Your task to perform on an android device: Is it going to rain this weekend? Image 0: 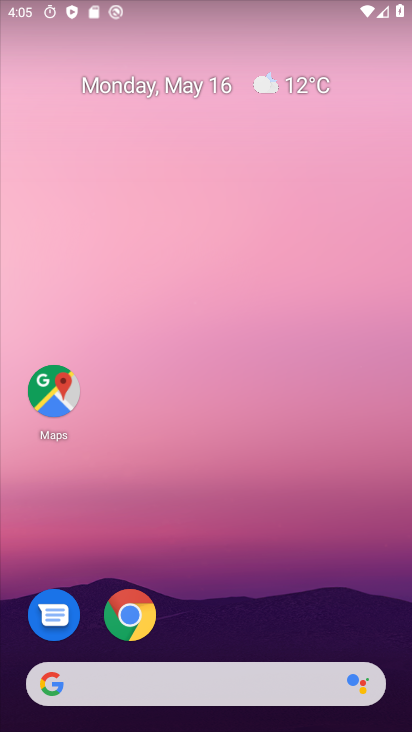
Step 0: click (160, 658)
Your task to perform on an android device: Is it going to rain this weekend? Image 1: 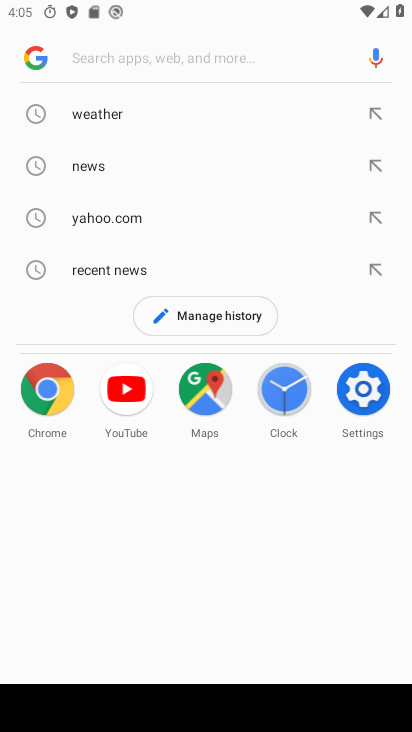
Step 1: click (129, 112)
Your task to perform on an android device: Is it going to rain this weekend? Image 2: 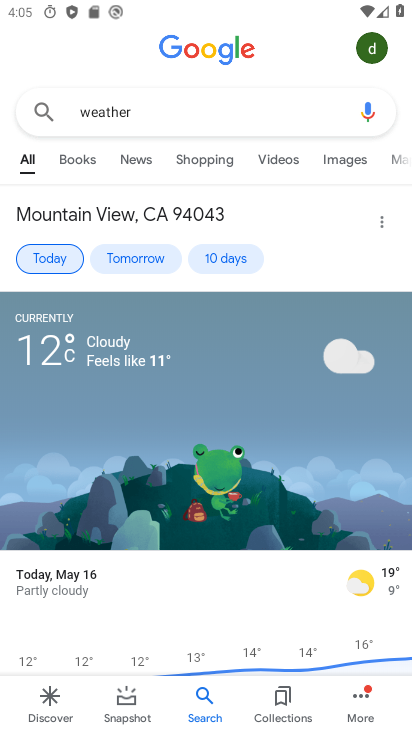
Step 2: click (220, 249)
Your task to perform on an android device: Is it going to rain this weekend? Image 3: 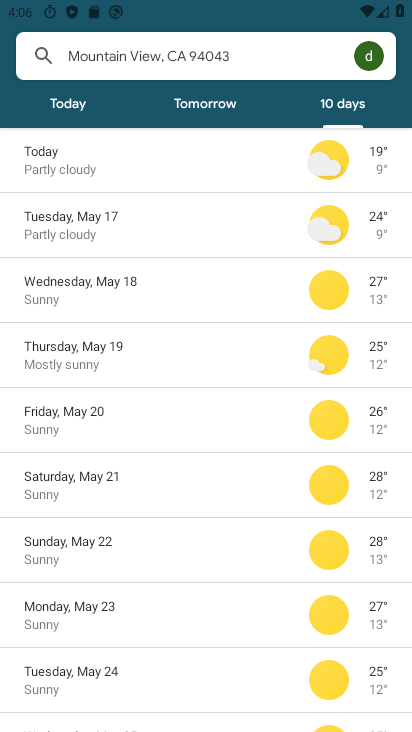
Step 3: task complete